Your task to perform on an android device: Go to Android settings Image 0: 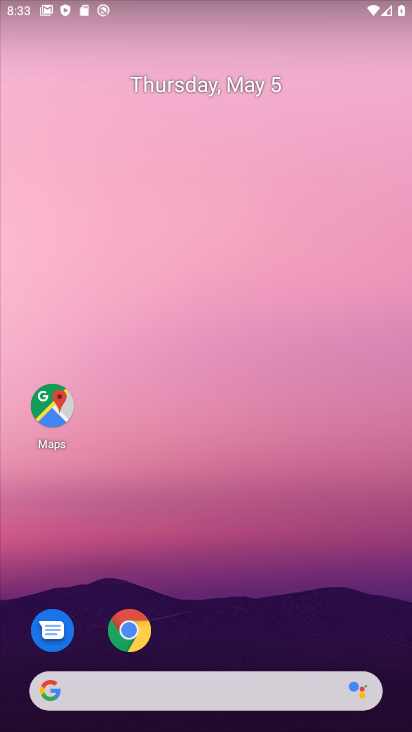
Step 0: drag from (199, 646) to (270, 22)
Your task to perform on an android device: Go to Android settings Image 1: 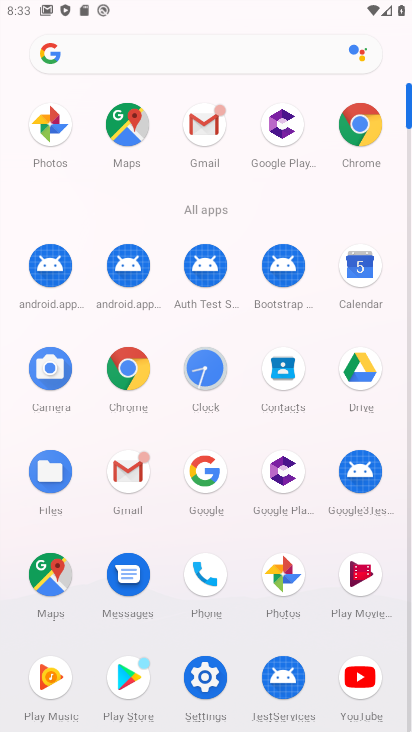
Step 1: click (190, 669)
Your task to perform on an android device: Go to Android settings Image 2: 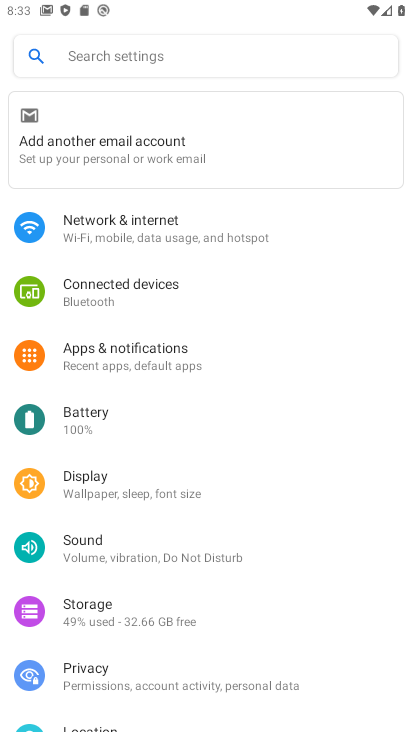
Step 2: drag from (74, 668) to (152, 260)
Your task to perform on an android device: Go to Android settings Image 3: 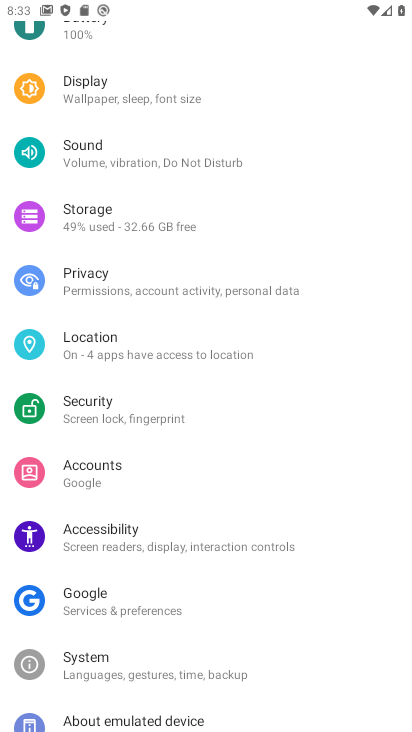
Step 3: click (89, 668)
Your task to perform on an android device: Go to Android settings Image 4: 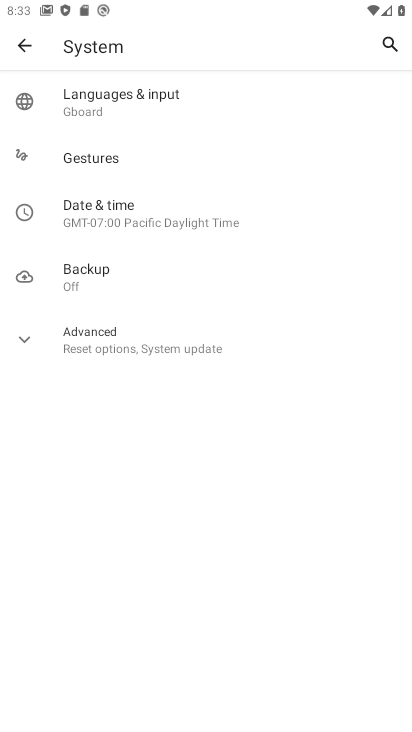
Step 4: task complete